Your task to perform on an android device: change your default location settings in chrome Image 0: 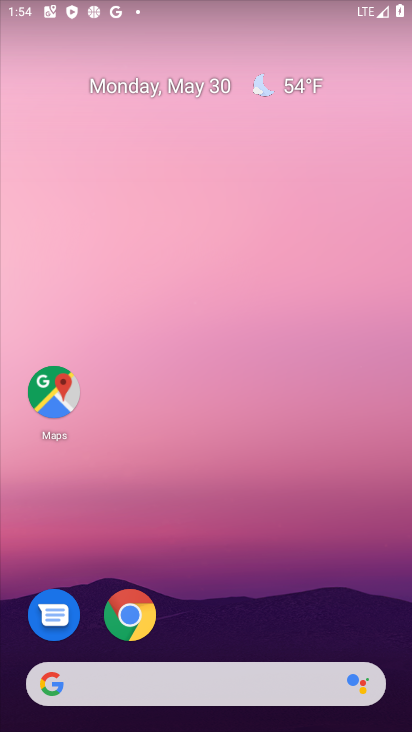
Step 0: click (332, 606)
Your task to perform on an android device: change your default location settings in chrome Image 1: 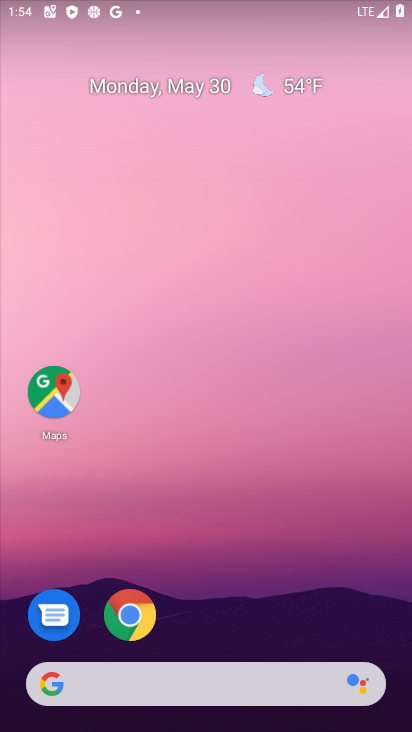
Step 1: click (139, 612)
Your task to perform on an android device: change your default location settings in chrome Image 2: 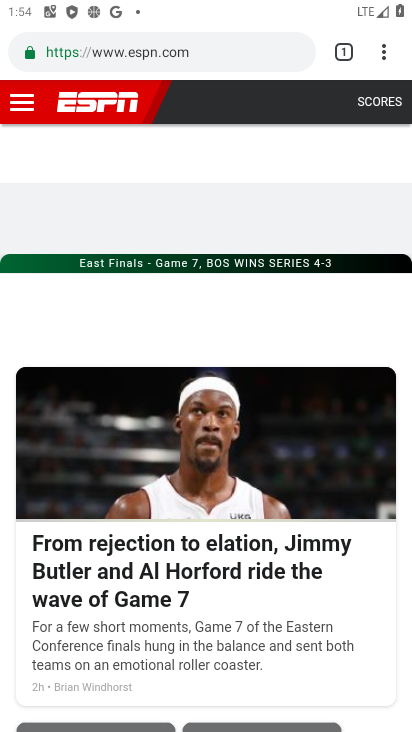
Step 2: click (383, 39)
Your task to perform on an android device: change your default location settings in chrome Image 3: 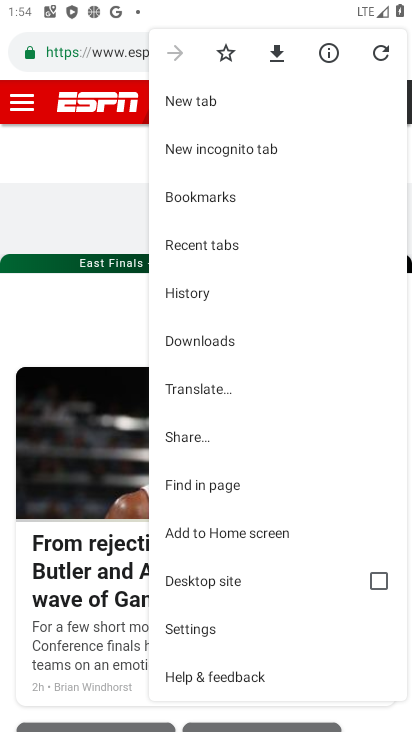
Step 3: click (207, 635)
Your task to perform on an android device: change your default location settings in chrome Image 4: 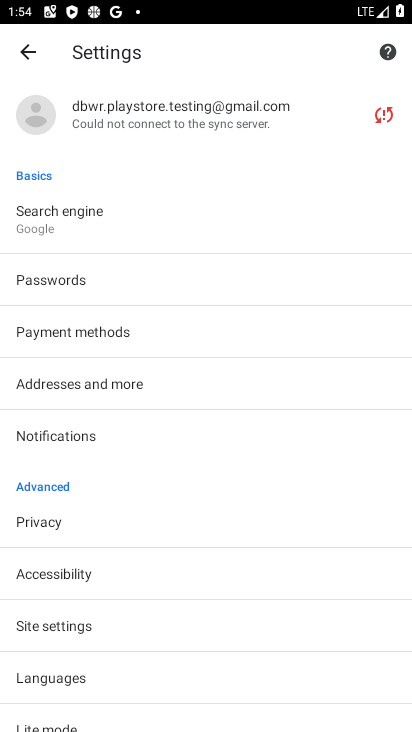
Step 4: drag from (166, 641) to (158, 466)
Your task to perform on an android device: change your default location settings in chrome Image 5: 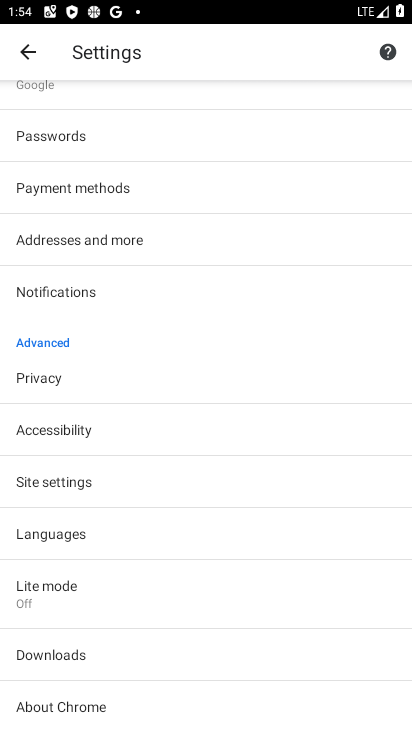
Step 5: click (130, 482)
Your task to perform on an android device: change your default location settings in chrome Image 6: 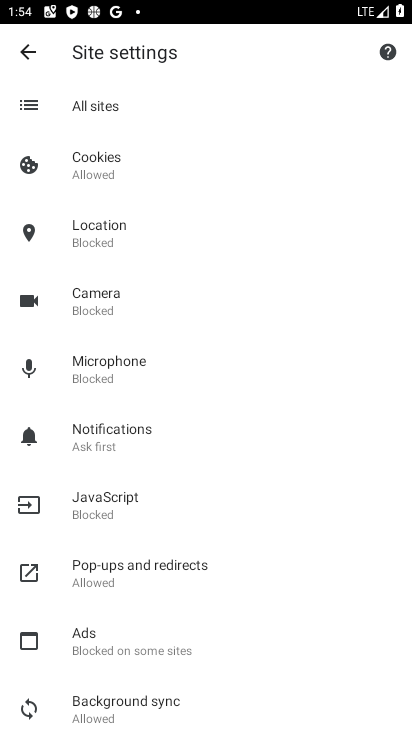
Step 6: click (155, 236)
Your task to perform on an android device: change your default location settings in chrome Image 7: 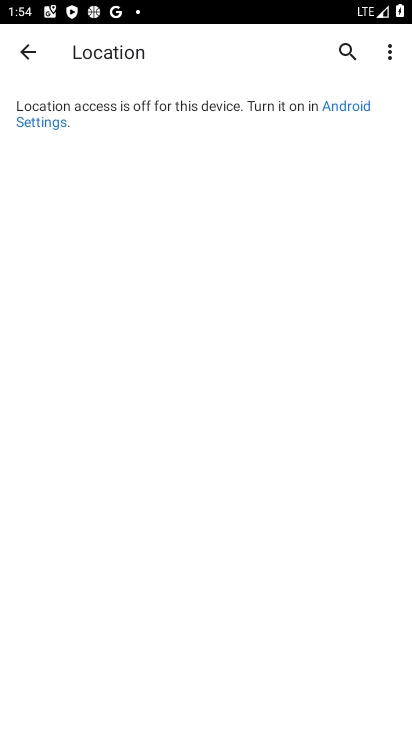
Step 7: click (337, 105)
Your task to perform on an android device: change your default location settings in chrome Image 8: 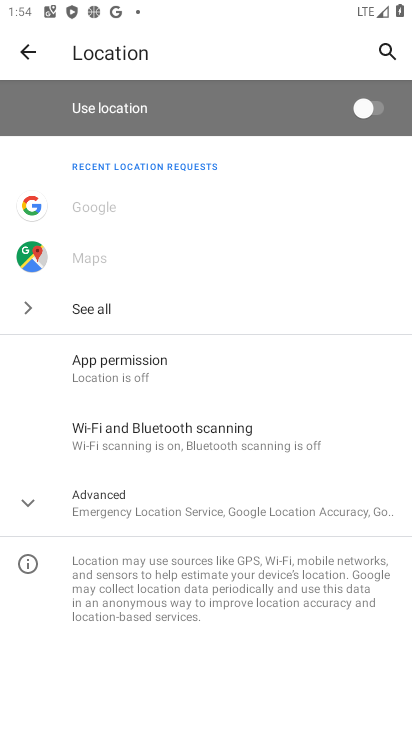
Step 8: click (373, 109)
Your task to perform on an android device: change your default location settings in chrome Image 9: 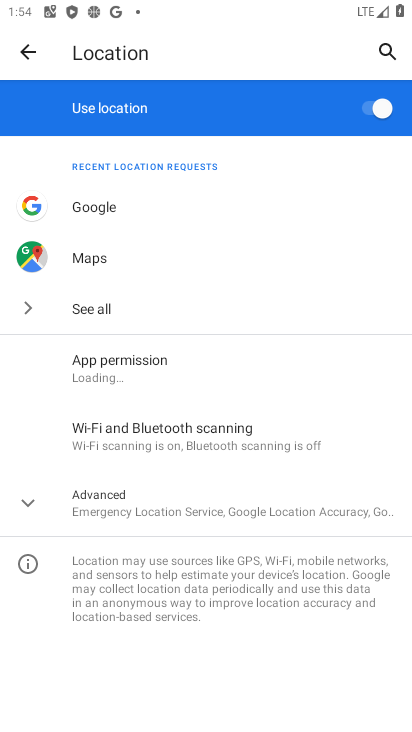
Step 9: click (30, 52)
Your task to perform on an android device: change your default location settings in chrome Image 10: 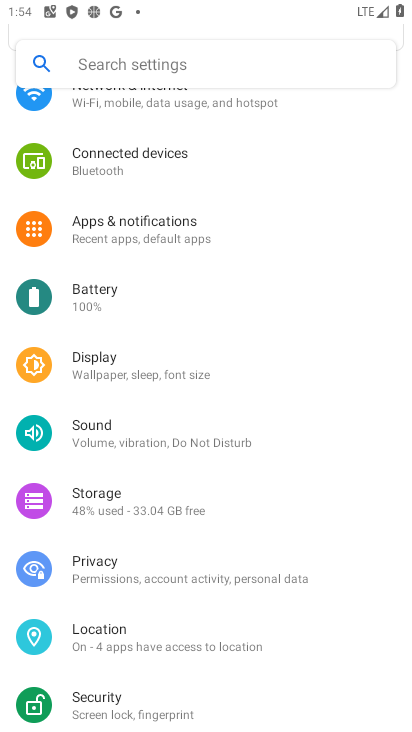
Step 10: task complete